Your task to perform on an android device: turn vacation reply on in the gmail app Image 0: 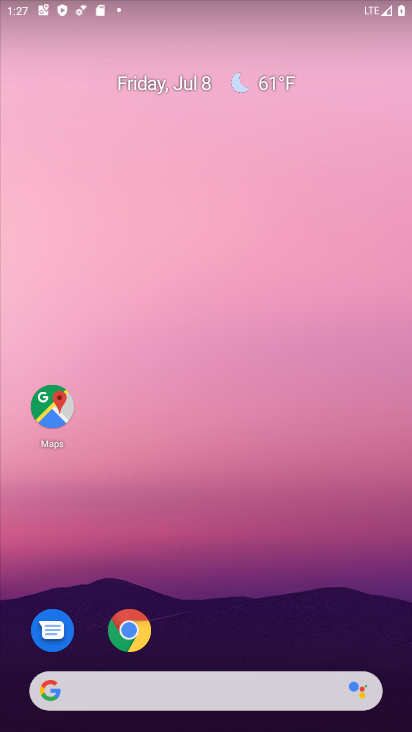
Step 0: drag from (365, 617) to (304, 132)
Your task to perform on an android device: turn vacation reply on in the gmail app Image 1: 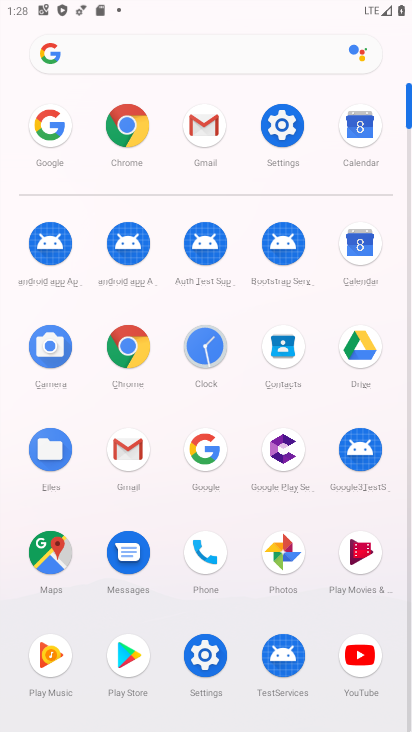
Step 1: click (125, 444)
Your task to perform on an android device: turn vacation reply on in the gmail app Image 2: 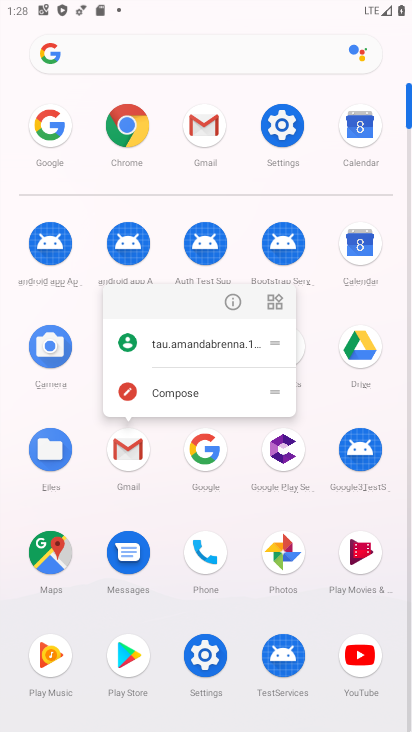
Step 2: click (136, 464)
Your task to perform on an android device: turn vacation reply on in the gmail app Image 3: 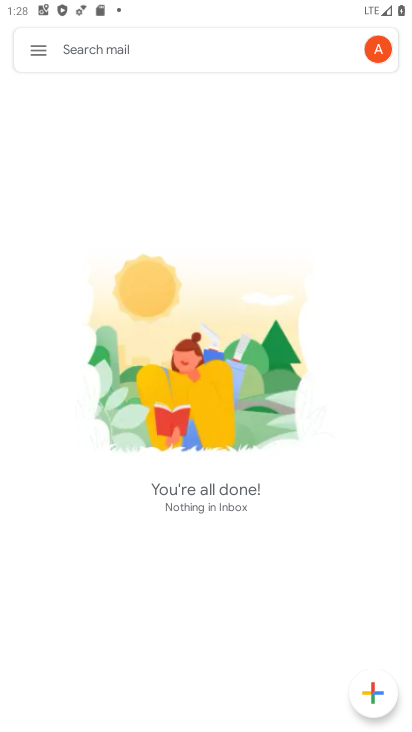
Step 3: click (31, 52)
Your task to perform on an android device: turn vacation reply on in the gmail app Image 4: 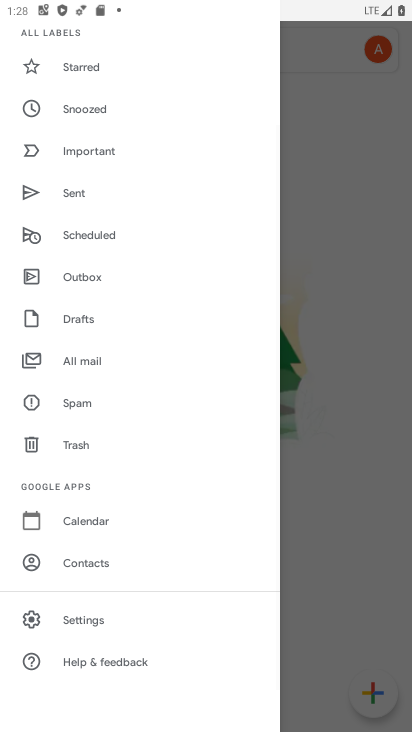
Step 4: click (80, 612)
Your task to perform on an android device: turn vacation reply on in the gmail app Image 5: 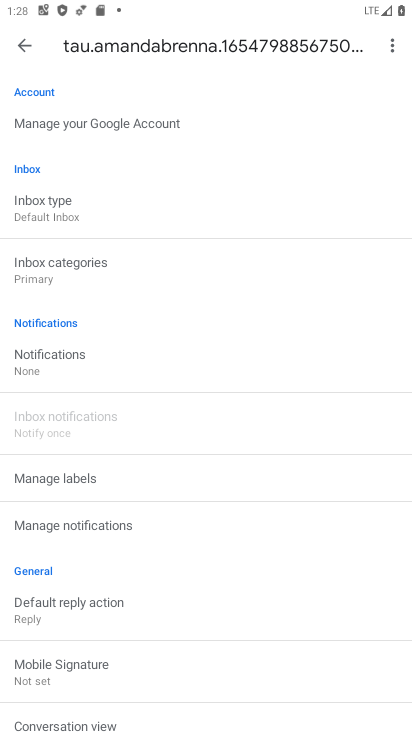
Step 5: drag from (80, 611) to (50, 320)
Your task to perform on an android device: turn vacation reply on in the gmail app Image 6: 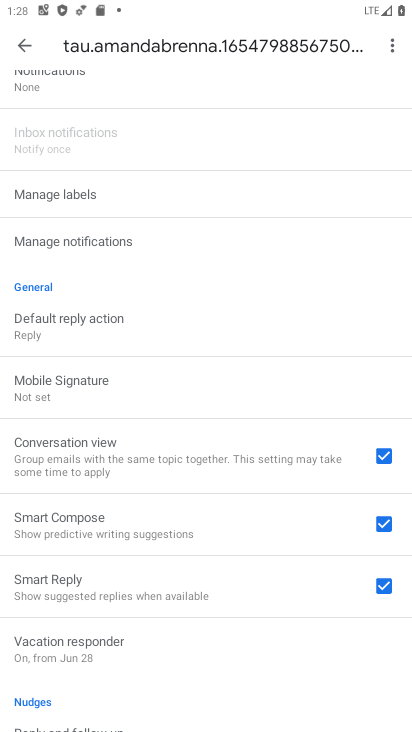
Step 6: click (135, 652)
Your task to perform on an android device: turn vacation reply on in the gmail app Image 7: 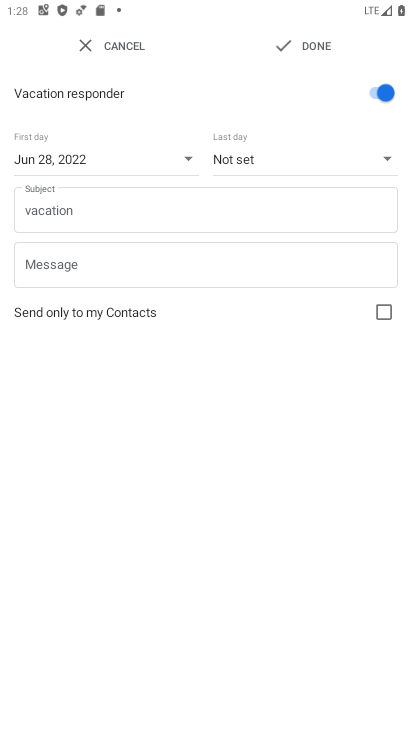
Step 7: task complete